Your task to perform on an android device: turn notification dots on Image 0: 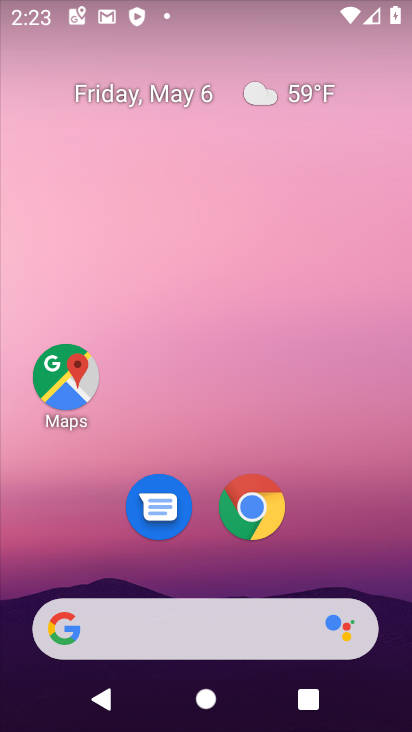
Step 0: drag from (307, 541) to (333, 88)
Your task to perform on an android device: turn notification dots on Image 1: 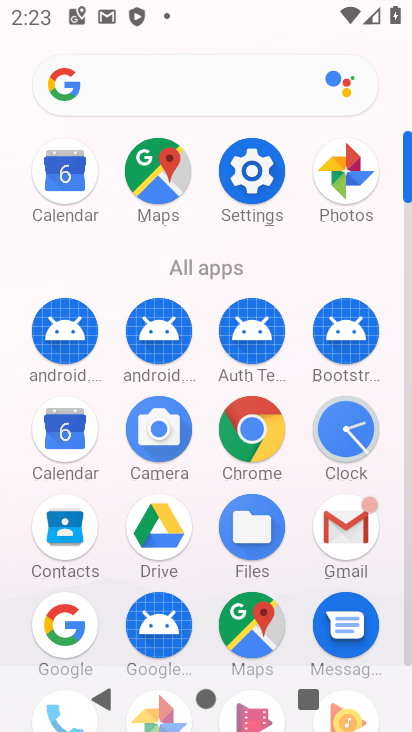
Step 1: click (258, 178)
Your task to perform on an android device: turn notification dots on Image 2: 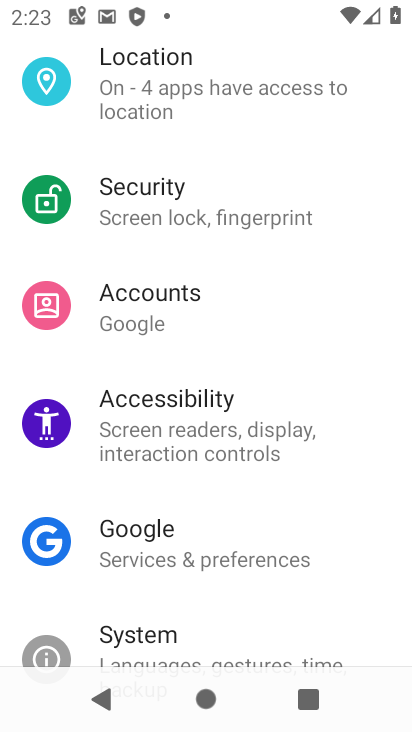
Step 2: drag from (244, 311) to (282, 549)
Your task to perform on an android device: turn notification dots on Image 3: 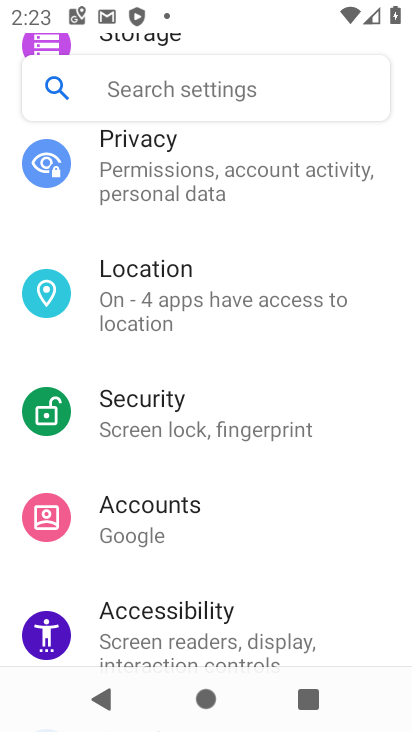
Step 3: drag from (288, 260) to (269, 603)
Your task to perform on an android device: turn notification dots on Image 4: 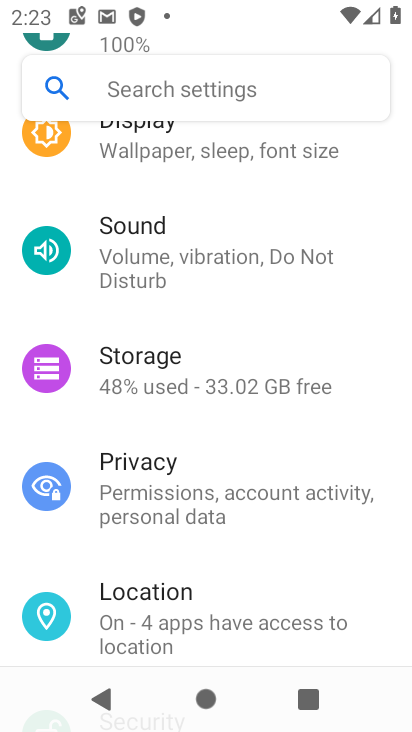
Step 4: drag from (206, 308) to (199, 591)
Your task to perform on an android device: turn notification dots on Image 5: 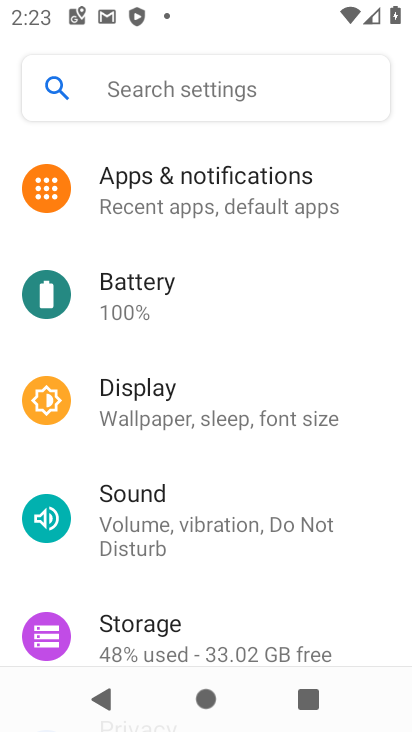
Step 5: click (203, 209)
Your task to perform on an android device: turn notification dots on Image 6: 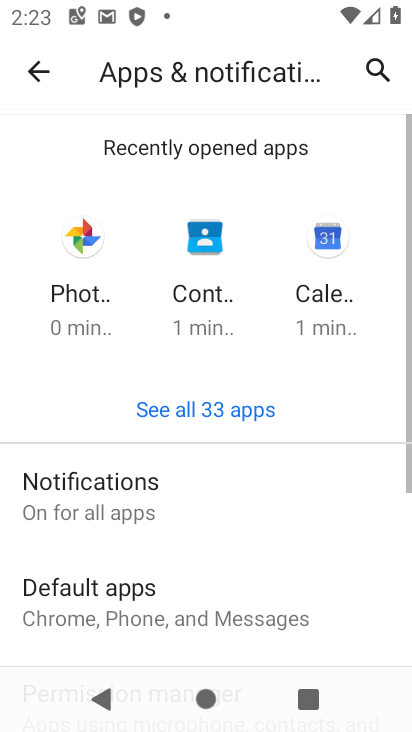
Step 6: drag from (279, 595) to (297, 143)
Your task to perform on an android device: turn notification dots on Image 7: 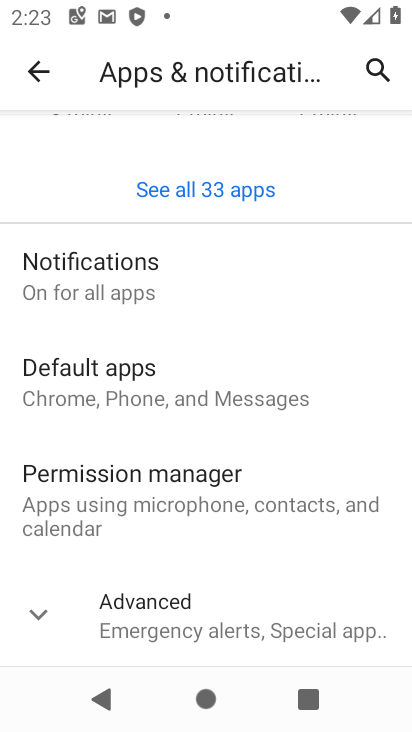
Step 7: click (44, 633)
Your task to perform on an android device: turn notification dots on Image 8: 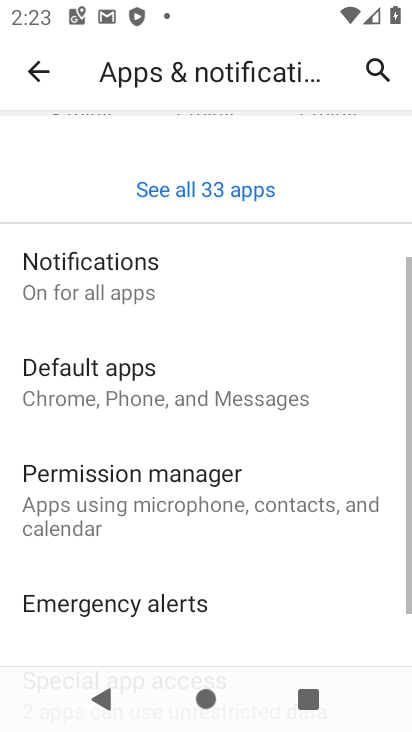
Step 8: drag from (162, 607) to (202, 262)
Your task to perform on an android device: turn notification dots on Image 9: 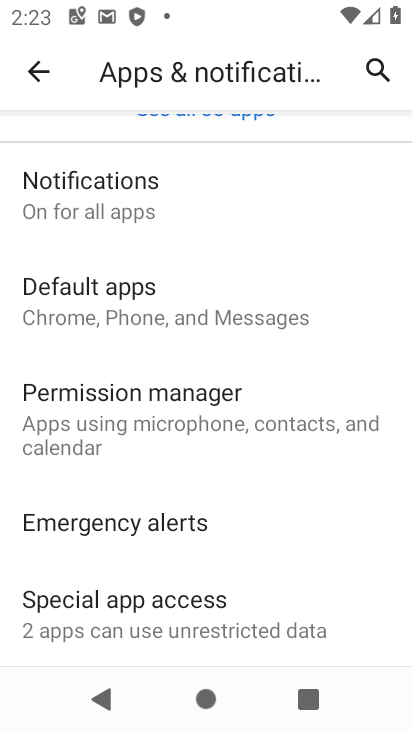
Step 9: click (135, 209)
Your task to perform on an android device: turn notification dots on Image 10: 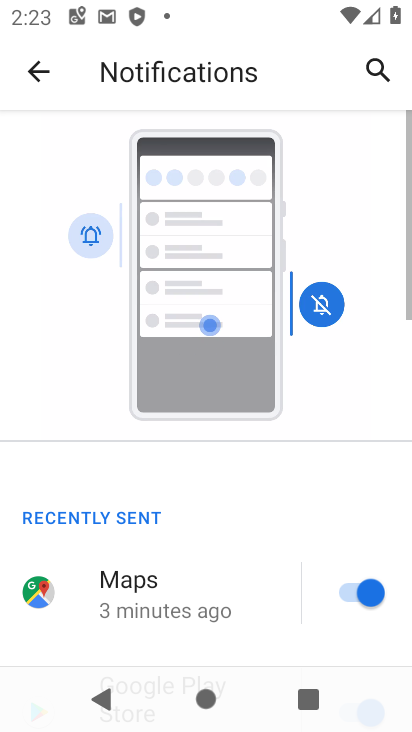
Step 10: drag from (210, 622) to (212, 294)
Your task to perform on an android device: turn notification dots on Image 11: 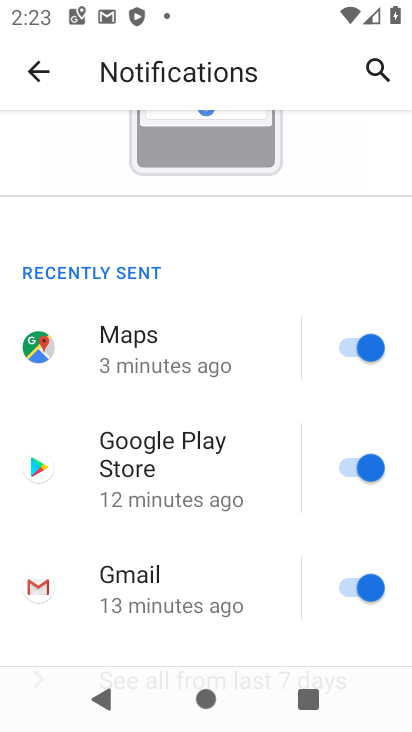
Step 11: drag from (234, 637) to (237, 333)
Your task to perform on an android device: turn notification dots on Image 12: 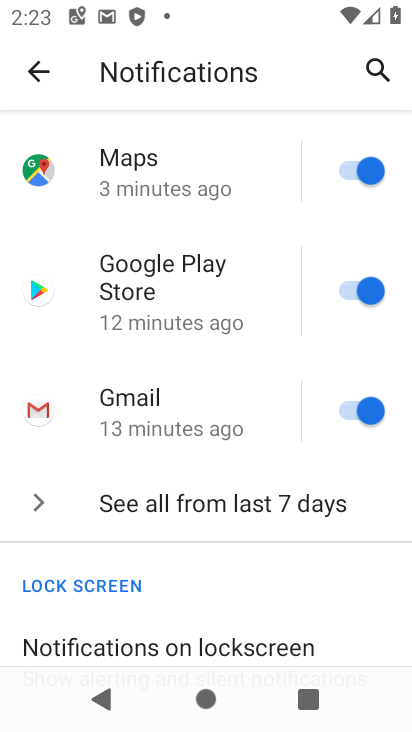
Step 12: drag from (218, 644) to (229, 198)
Your task to perform on an android device: turn notification dots on Image 13: 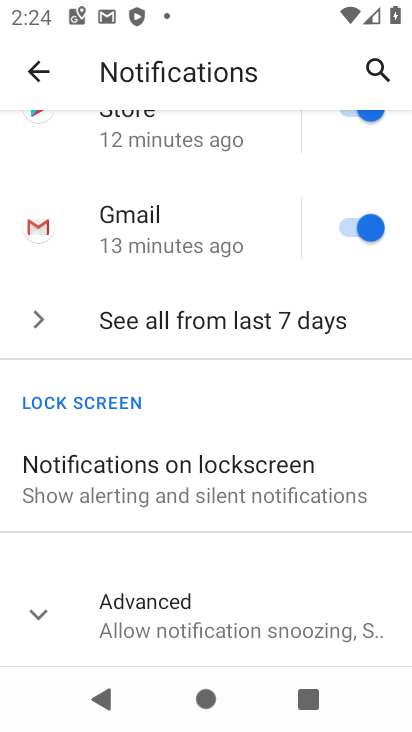
Step 13: click (49, 613)
Your task to perform on an android device: turn notification dots on Image 14: 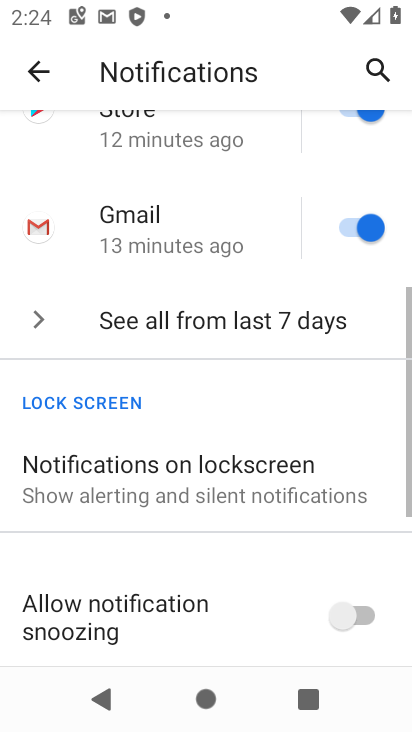
Step 14: task complete